Your task to perform on an android device: delete browsing data in the chrome app Image 0: 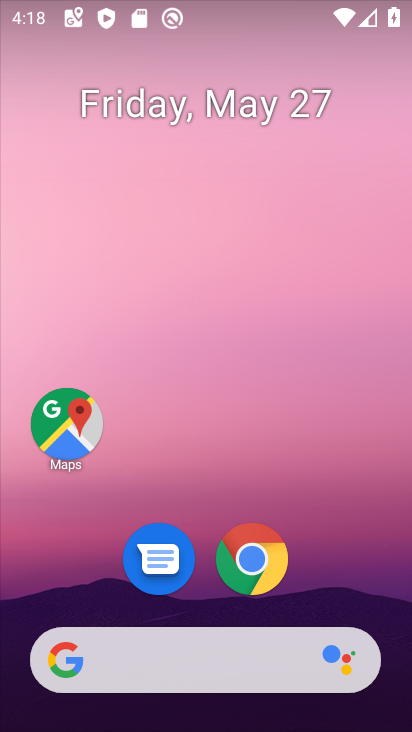
Step 0: click (245, 565)
Your task to perform on an android device: delete browsing data in the chrome app Image 1: 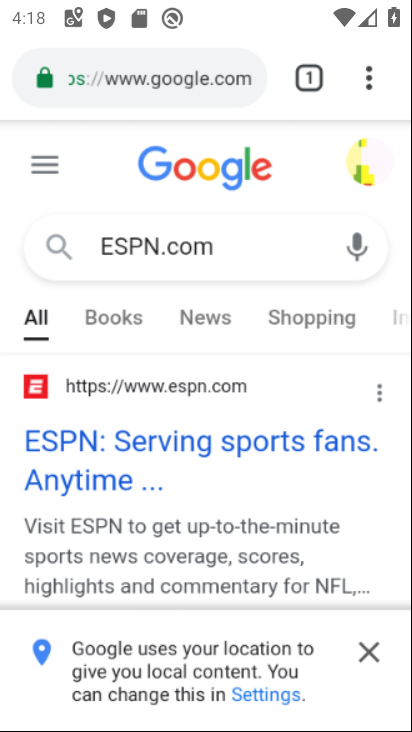
Step 1: click (368, 79)
Your task to perform on an android device: delete browsing data in the chrome app Image 2: 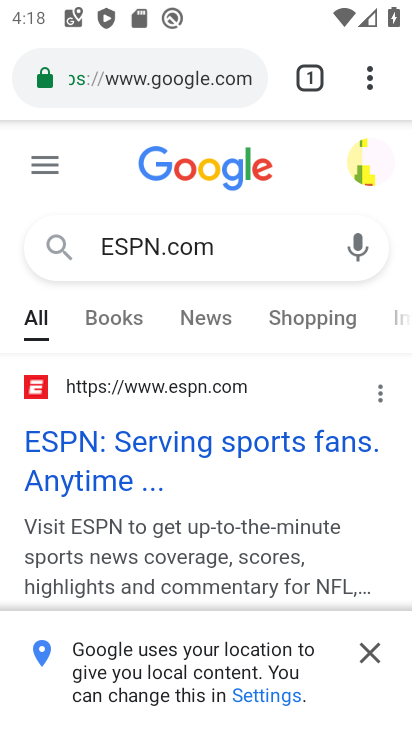
Step 2: click (370, 72)
Your task to perform on an android device: delete browsing data in the chrome app Image 3: 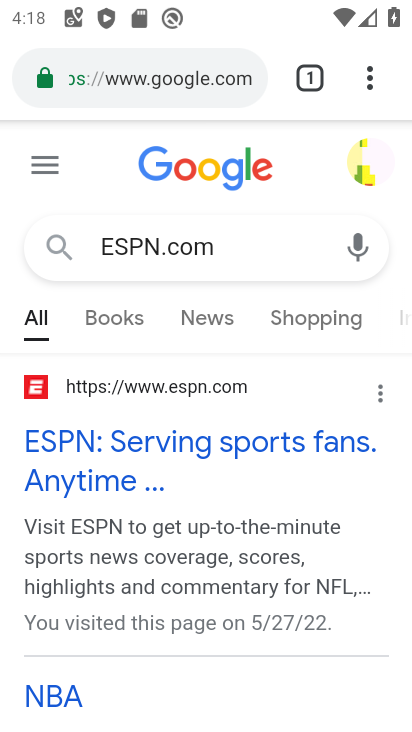
Step 3: click (365, 71)
Your task to perform on an android device: delete browsing data in the chrome app Image 4: 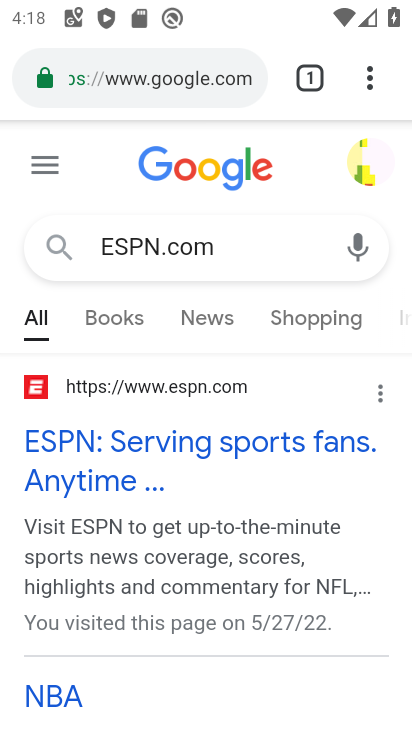
Step 4: click (367, 70)
Your task to perform on an android device: delete browsing data in the chrome app Image 5: 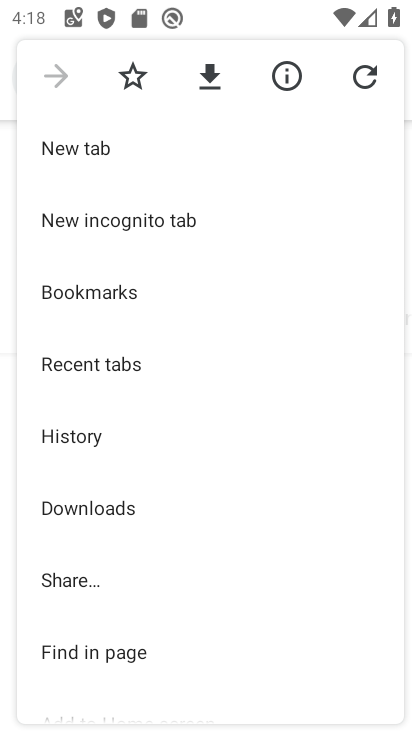
Step 5: drag from (254, 558) to (256, 233)
Your task to perform on an android device: delete browsing data in the chrome app Image 6: 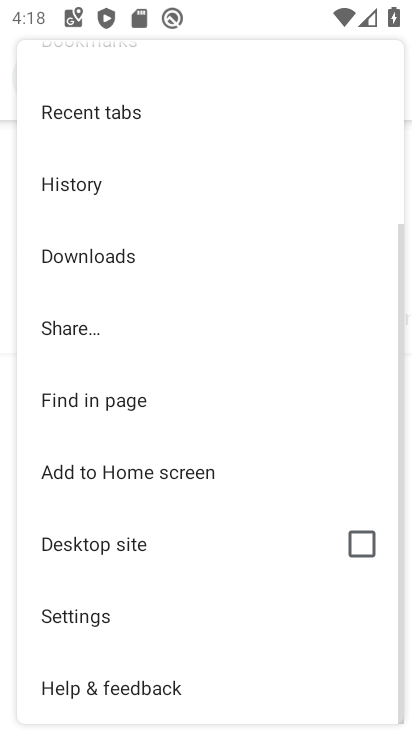
Step 6: click (75, 621)
Your task to perform on an android device: delete browsing data in the chrome app Image 7: 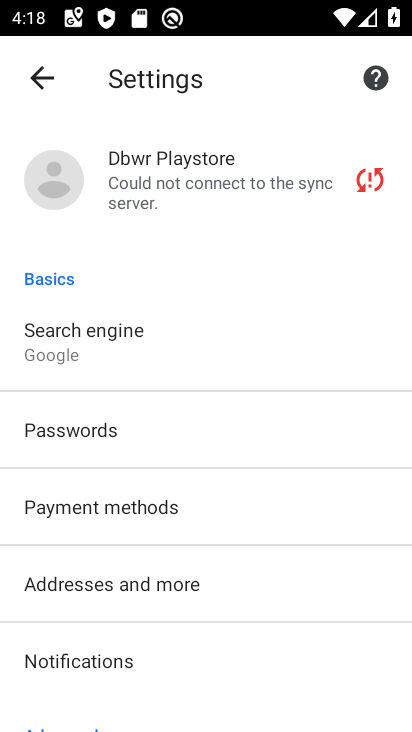
Step 7: drag from (226, 675) to (230, 313)
Your task to perform on an android device: delete browsing data in the chrome app Image 8: 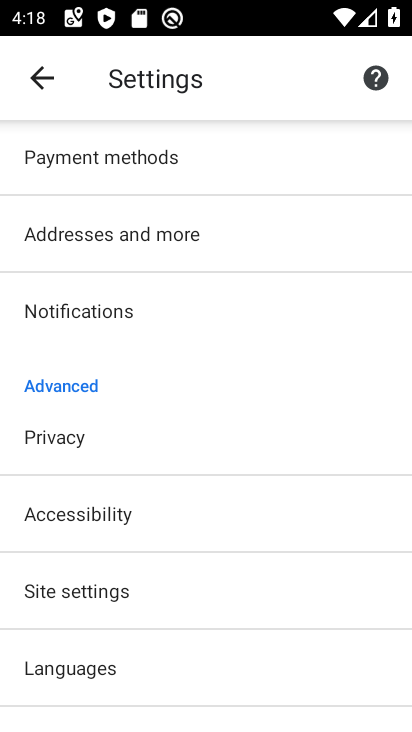
Step 8: press back button
Your task to perform on an android device: delete browsing data in the chrome app Image 9: 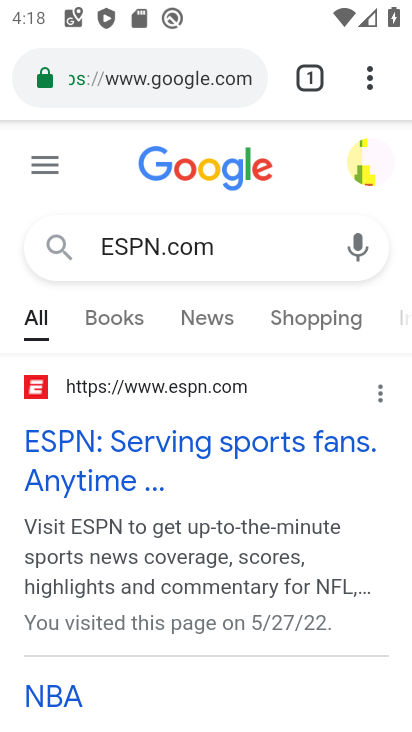
Step 9: click (372, 78)
Your task to perform on an android device: delete browsing data in the chrome app Image 10: 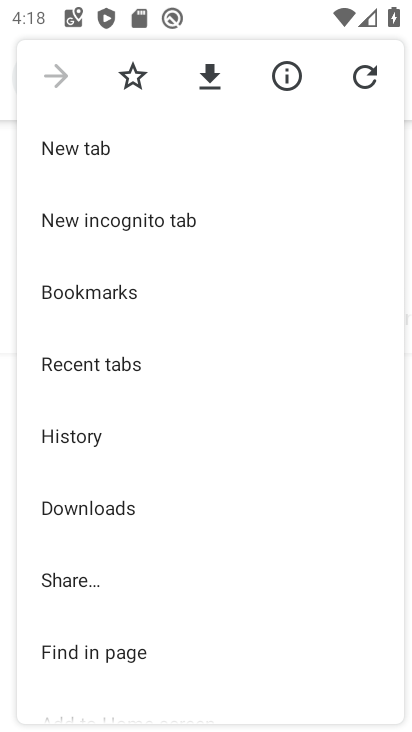
Step 10: click (62, 432)
Your task to perform on an android device: delete browsing data in the chrome app Image 11: 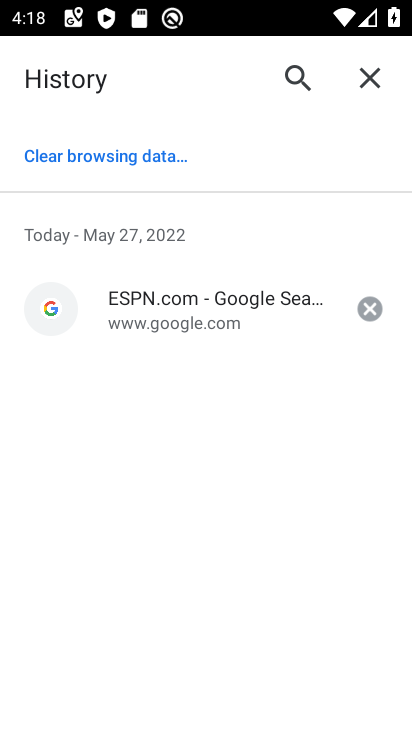
Step 11: click (163, 159)
Your task to perform on an android device: delete browsing data in the chrome app Image 12: 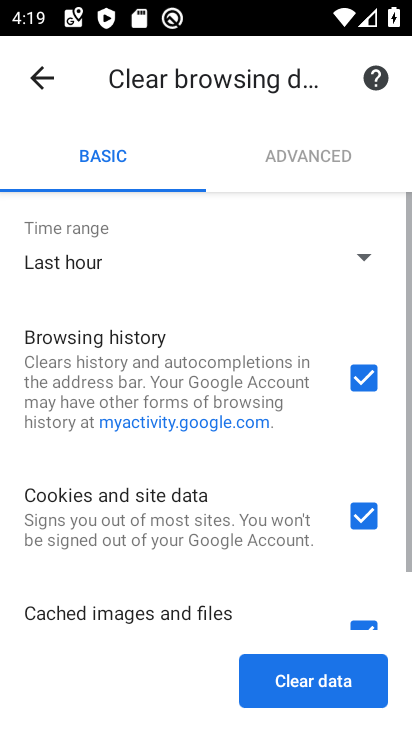
Step 12: click (315, 676)
Your task to perform on an android device: delete browsing data in the chrome app Image 13: 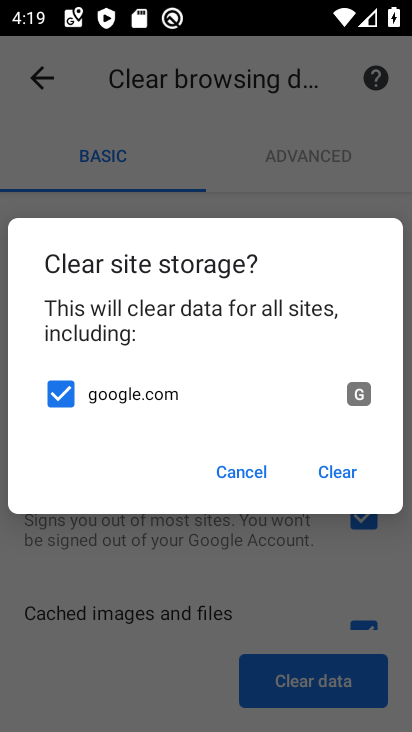
Step 13: task complete